Your task to perform on an android device: Go to settings Image 0: 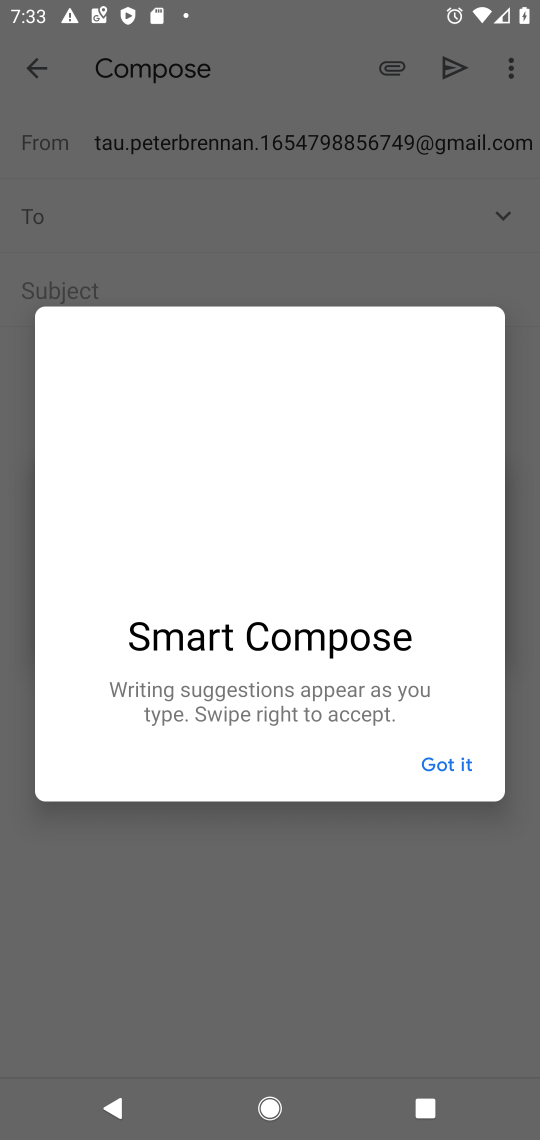
Step 0: press home button
Your task to perform on an android device: Go to settings Image 1: 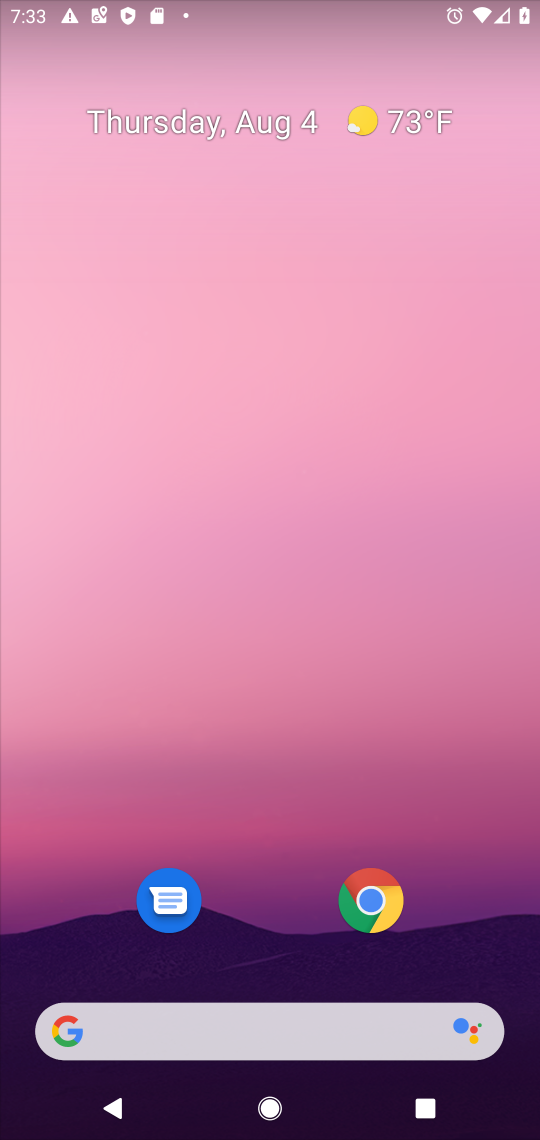
Step 1: drag from (247, 1039) to (214, 294)
Your task to perform on an android device: Go to settings Image 2: 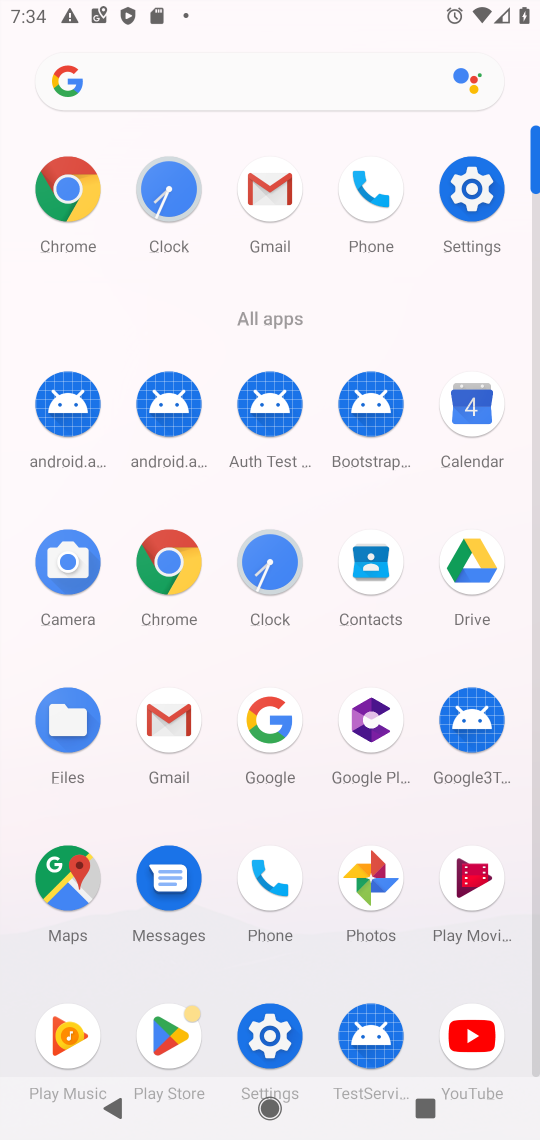
Step 2: click (464, 193)
Your task to perform on an android device: Go to settings Image 3: 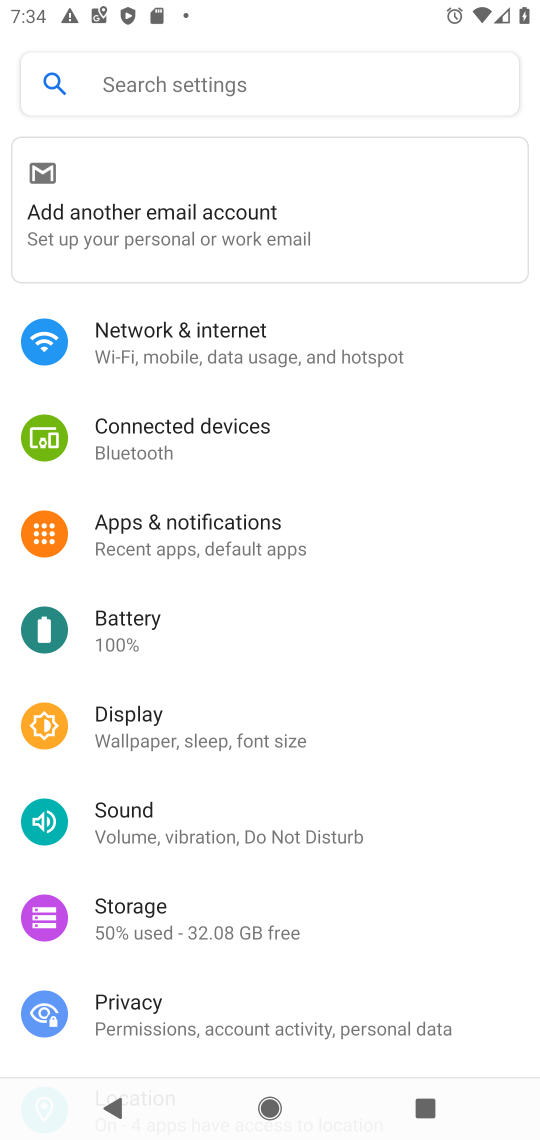
Step 3: task complete